Your task to perform on an android device: Toggle the flashlight Image 0: 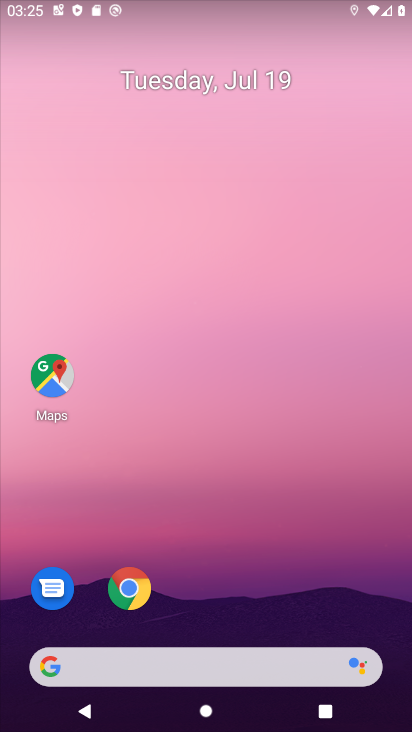
Step 0: drag from (289, 586) to (206, 89)
Your task to perform on an android device: Toggle the flashlight Image 1: 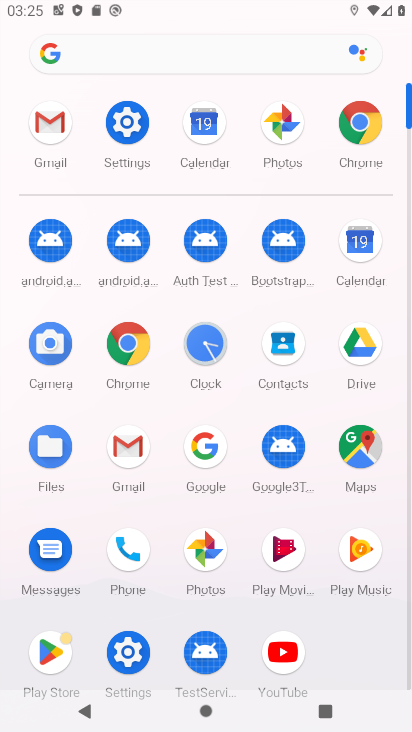
Step 1: click (121, 120)
Your task to perform on an android device: Toggle the flashlight Image 2: 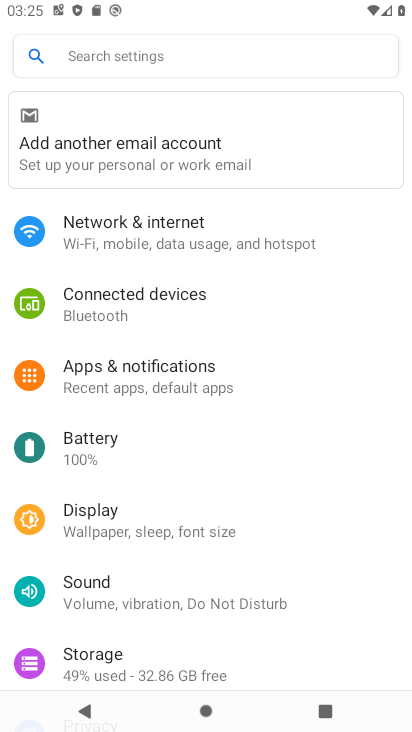
Step 2: click (97, 513)
Your task to perform on an android device: Toggle the flashlight Image 3: 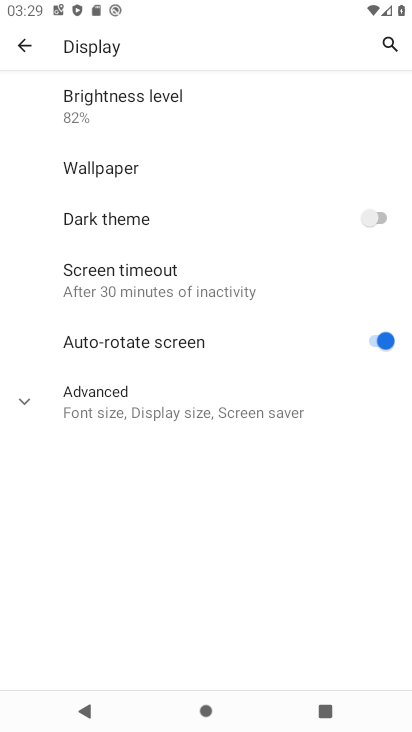
Step 3: task complete